Your task to perform on an android device: turn off data saver in the chrome app Image 0: 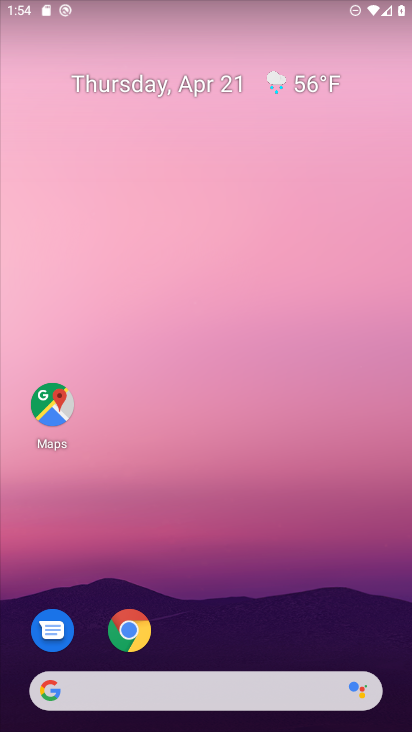
Step 0: click (132, 622)
Your task to perform on an android device: turn off data saver in the chrome app Image 1: 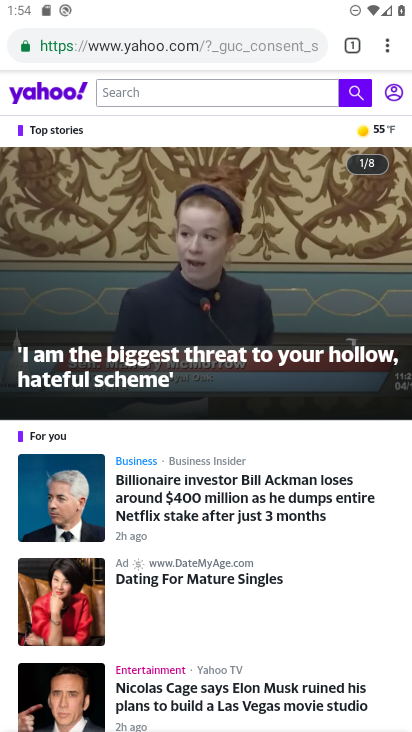
Step 1: drag from (393, 53) to (234, 610)
Your task to perform on an android device: turn off data saver in the chrome app Image 2: 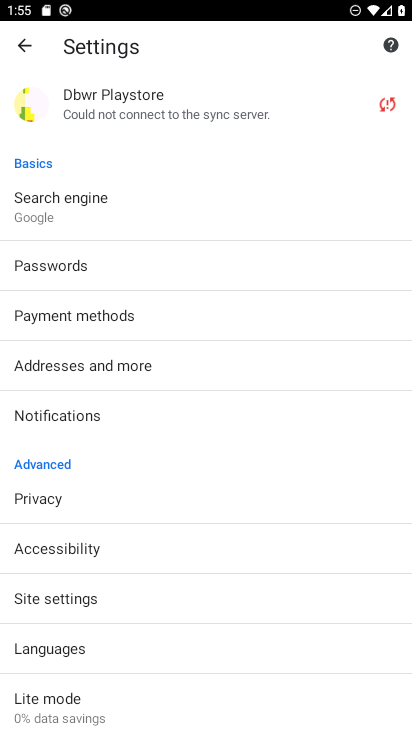
Step 2: drag from (125, 615) to (163, 126)
Your task to perform on an android device: turn off data saver in the chrome app Image 3: 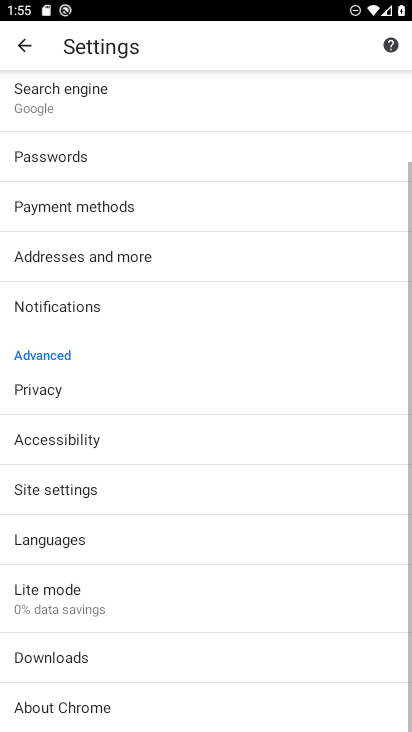
Step 3: click (69, 598)
Your task to perform on an android device: turn off data saver in the chrome app Image 4: 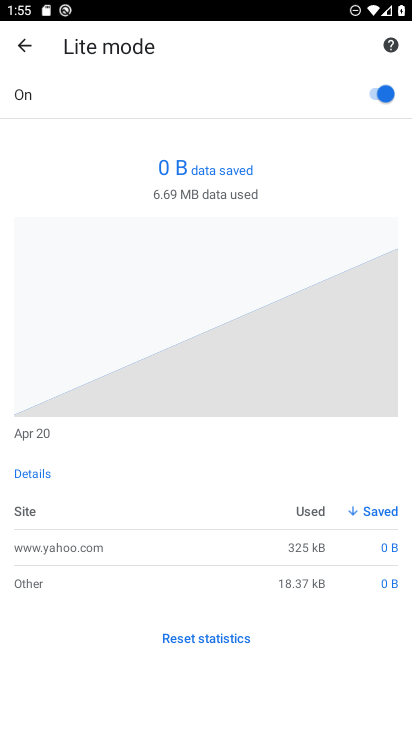
Step 4: click (382, 90)
Your task to perform on an android device: turn off data saver in the chrome app Image 5: 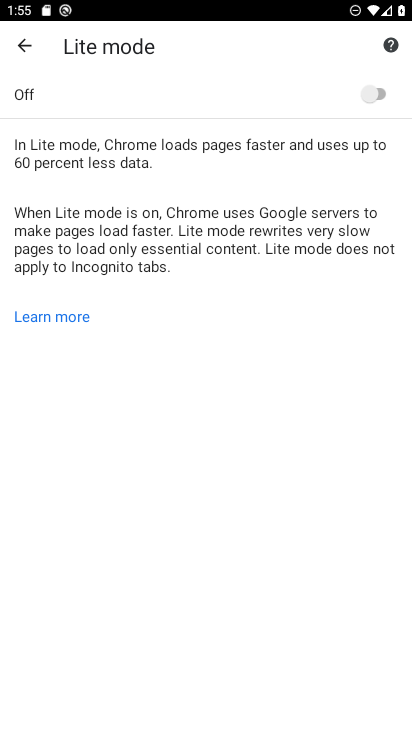
Step 5: task complete